Your task to perform on an android device: read, delete, or share a saved page in the chrome app Image 0: 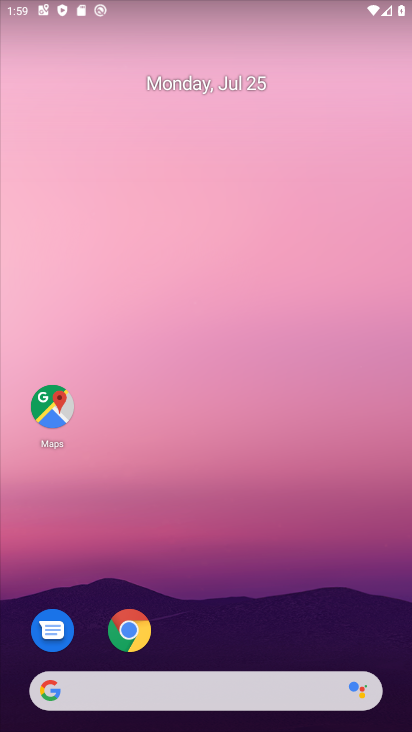
Step 0: click (131, 628)
Your task to perform on an android device: read, delete, or share a saved page in the chrome app Image 1: 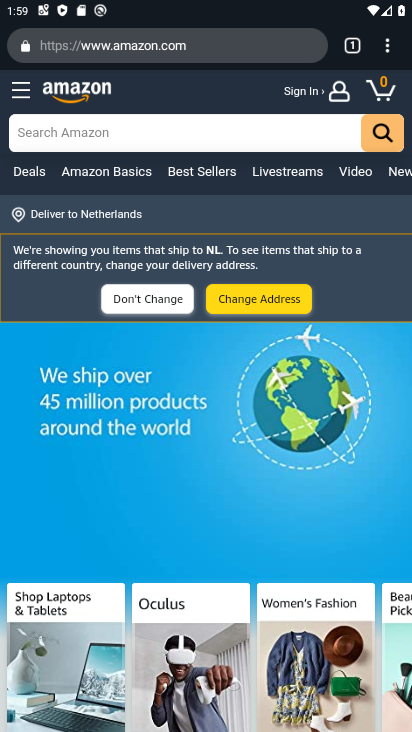
Step 1: click (385, 49)
Your task to perform on an android device: read, delete, or share a saved page in the chrome app Image 2: 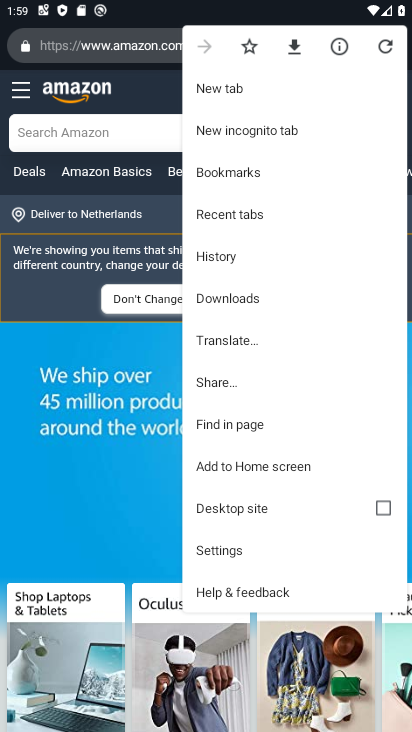
Step 2: click (258, 298)
Your task to perform on an android device: read, delete, or share a saved page in the chrome app Image 3: 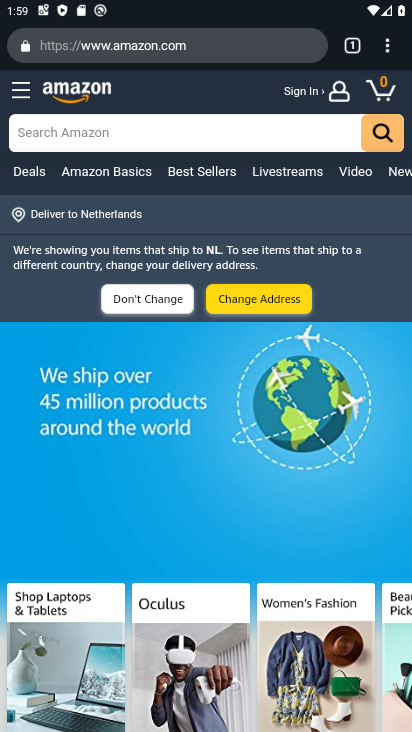
Step 3: task complete